Your task to perform on an android device: Go to Amazon Image 0: 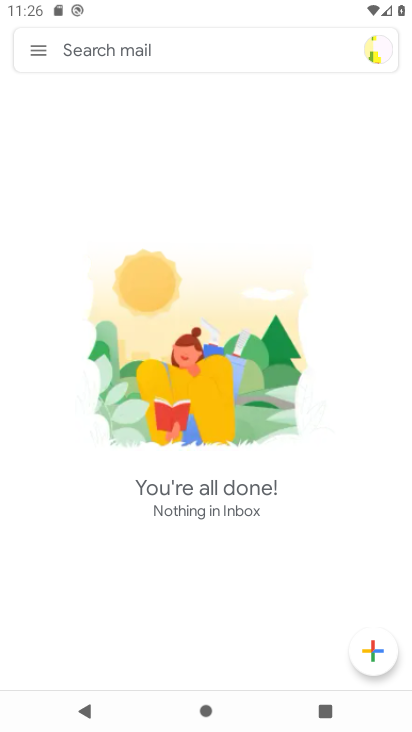
Step 0: press home button
Your task to perform on an android device: Go to Amazon Image 1: 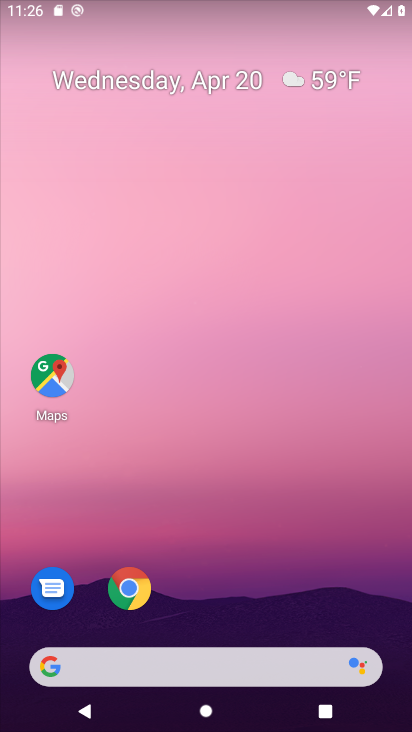
Step 1: click (129, 591)
Your task to perform on an android device: Go to Amazon Image 2: 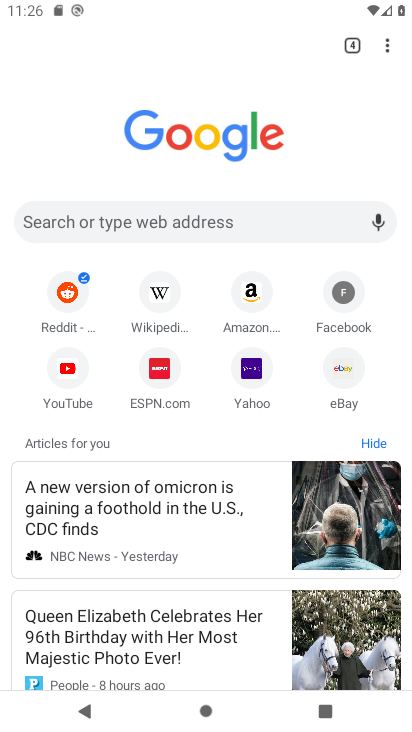
Step 2: click (247, 290)
Your task to perform on an android device: Go to Amazon Image 3: 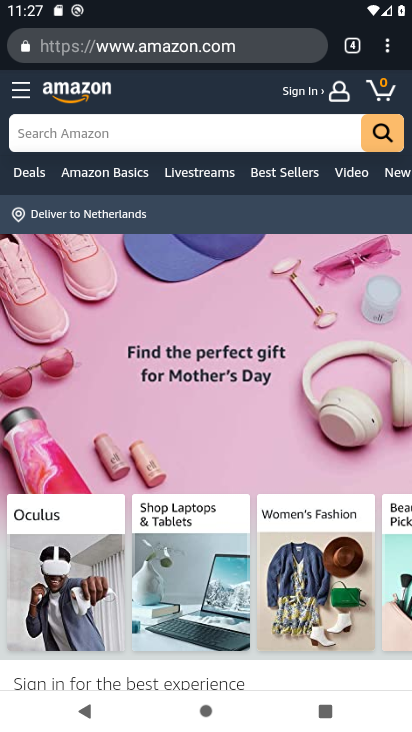
Step 3: task complete